Your task to perform on an android device: turn vacation reply on in the gmail app Image 0: 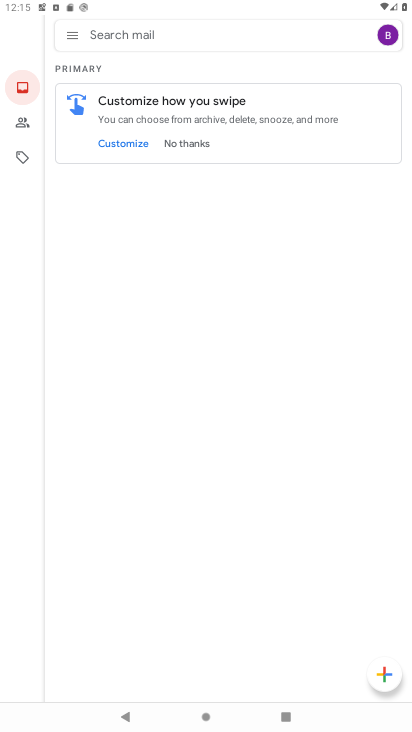
Step 0: press home button
Your task to perform on an android device: turn vacation reply on in the gmail app Image 1: 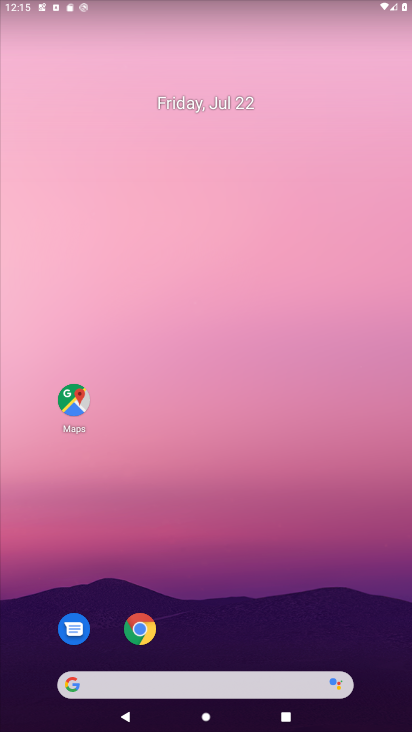
Step 1: drag from (254, 609) to (276, 150)
Your task to perform on an android device: turn vacation reply on in the gmail app Image 2: 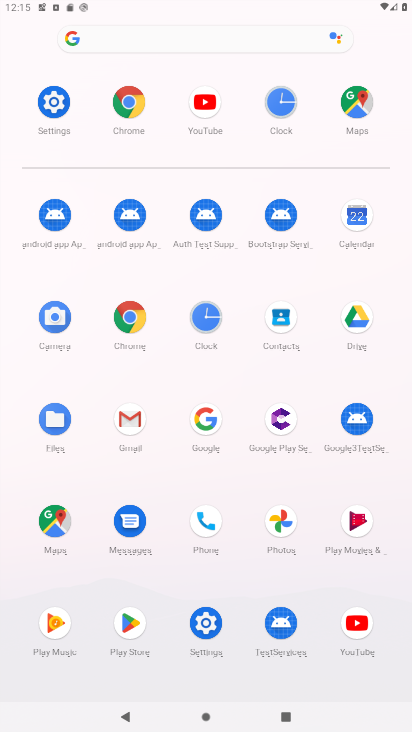
Step 2: click (135, 428)
Your task to perform on an android device: turn vacation reply on in the gmail app Image 3: 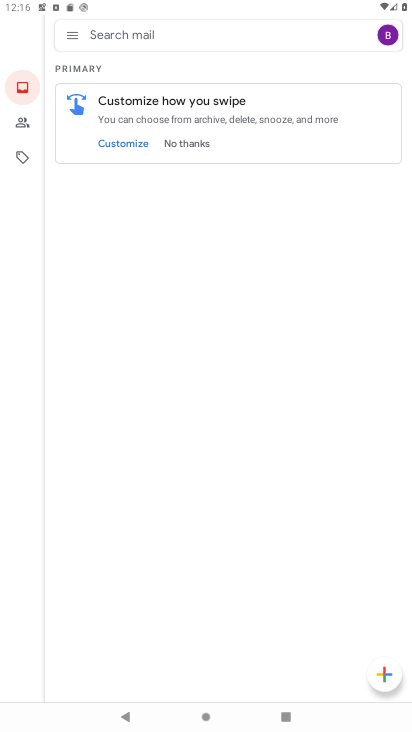
Step 3: click (70, 33)
Your task to perform on an android device: turn vacation reply on in the gmail app Image 4: 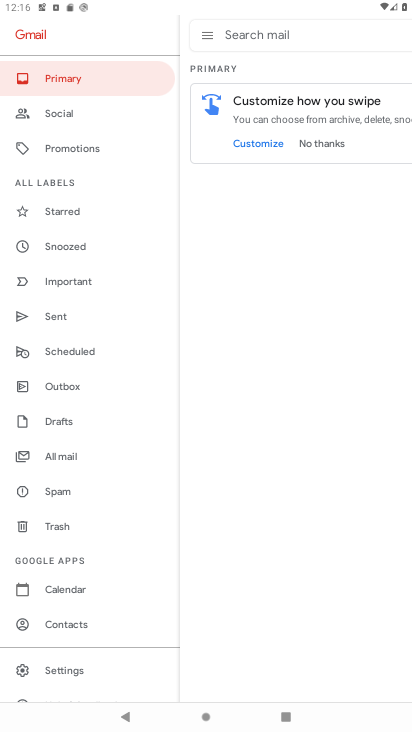
Step 4: drag from (87, 625) to (106, 394)
Your task to perform on an android device: turn vacation reply on in the gmail app Image 5: 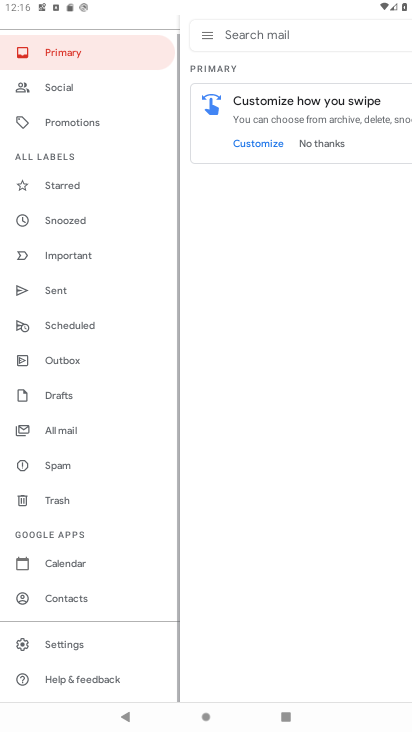
Step 5: click (78, 649)
Your task to perform on an android device: turn vacation reply on in the gmail app Image 6: 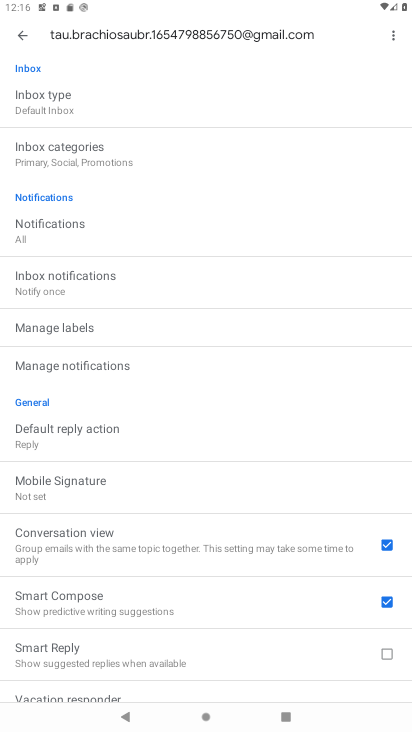
Step 6: drag from (184, 454) to (224, 183)
Your task to perform on an android device: turn vacation reply on in the gmail app Image 7: 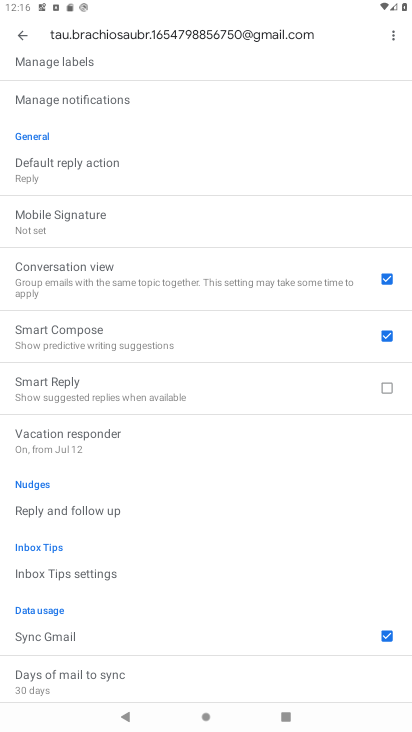
Step 7: drag from (156, 617) to (255, 668)
Your task to perform on an android device: turn vacation reply on in the gmail app Image 8: 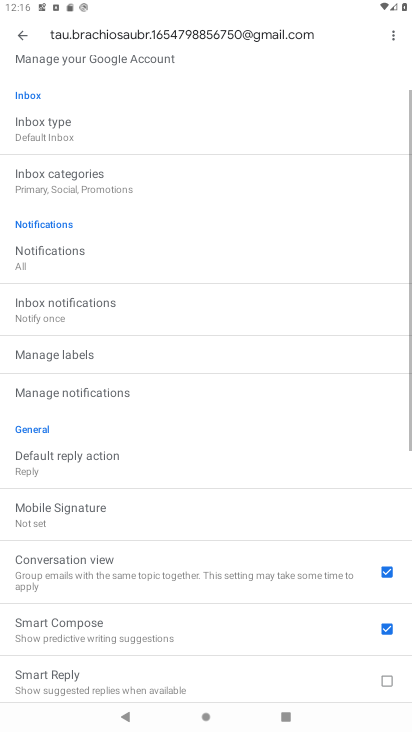
Step 8: drag from (211, 287) to (216, 555)
Your task to perform on an android device: turn vacation reply on in the gmail app Image 9: 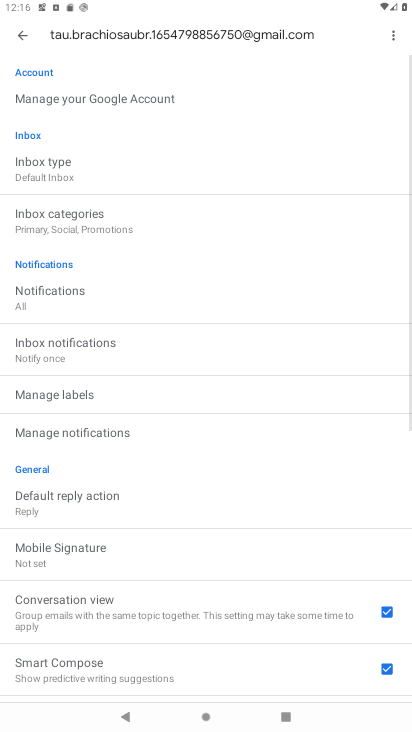
Step 9: drag from (191, 584) to (211, 251)
Your task to perform on an android device: turn vacation reply on in the gmail app Image 10: 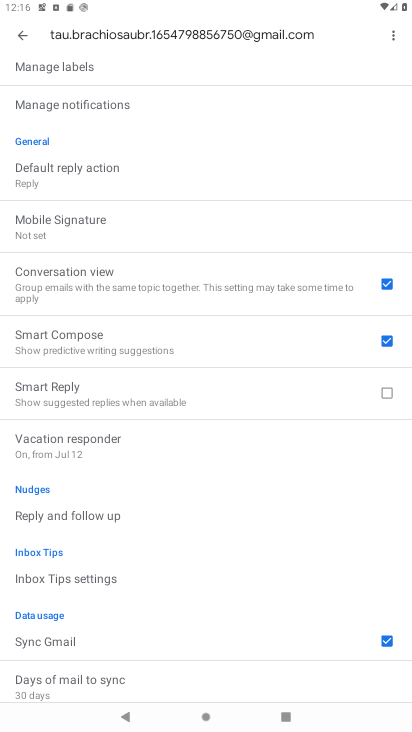
Step 10: click (303, 439)
Your task to perform on an android device: turn vacation reply on in the gmail app Image 11: 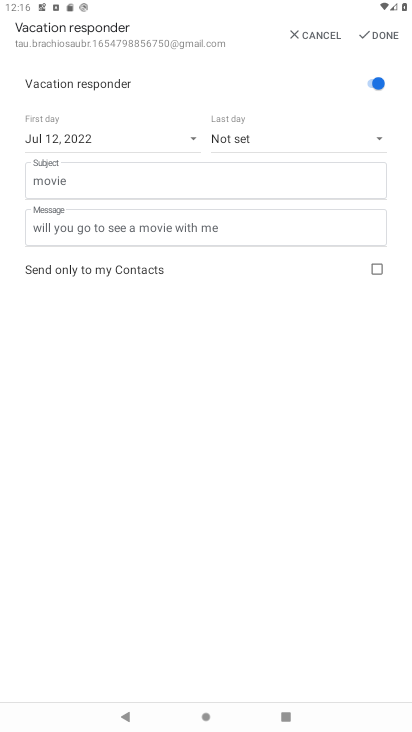
Step 11: click (367, 39)
Your task to perform on an android device: turn vacation reply on in the gmail app Image 12: 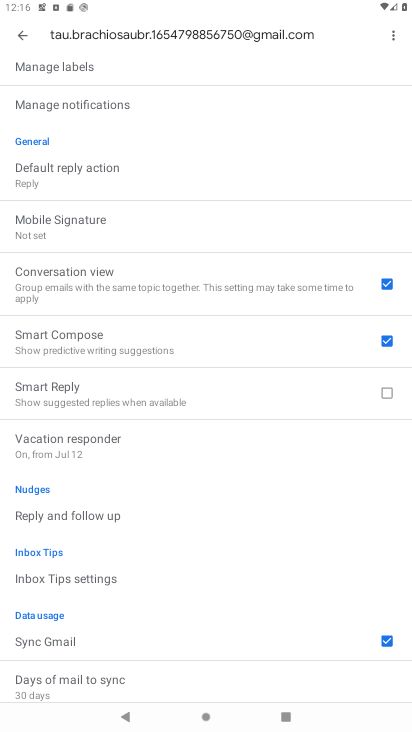
Step 12: task complete